Your task to perform on an android device: check google app version Image 0: 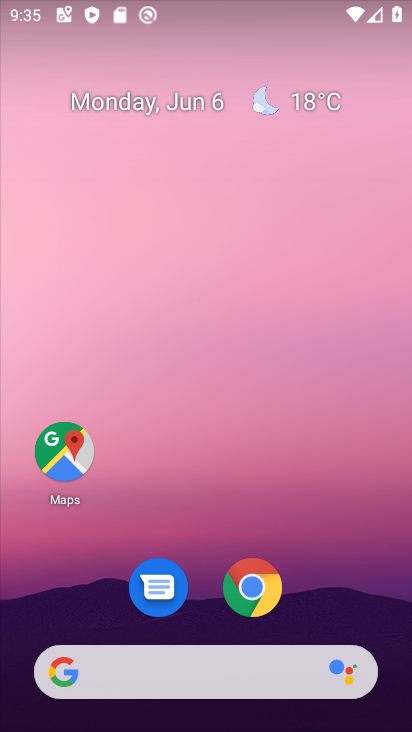
Step 0: drag from (349, 587) to (294, 69)
Your task to perform on an android device: check google app version Image 1: 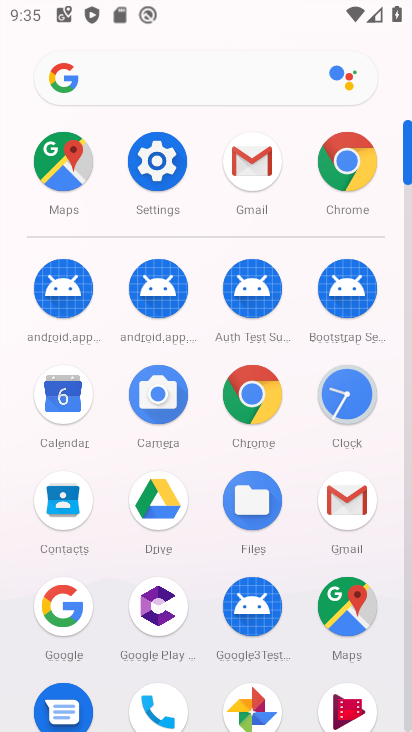
Step 1: click (67, 608)
Your task to perform on an android device: check google app version Image 2: 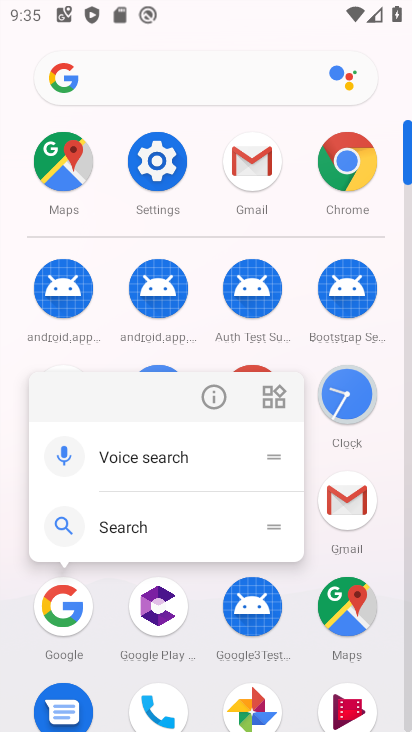
Step 2: click (210, 402)
Your task to perform on an android device: check google app version Image 3: 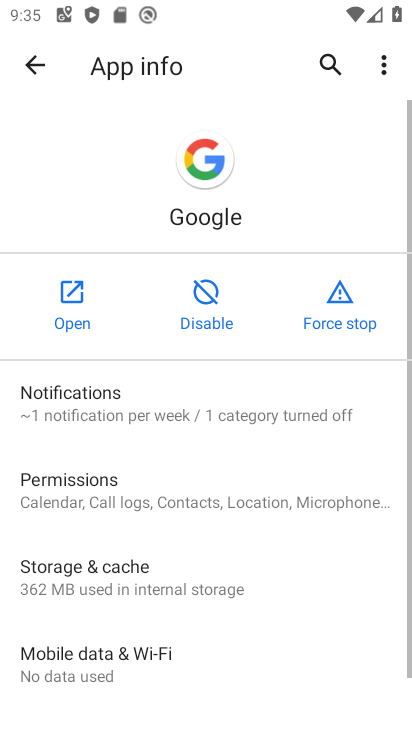
Step 3: drag from (134, 623) to (272, 100)
Your task to perform on an android device: check google app version Image 4: 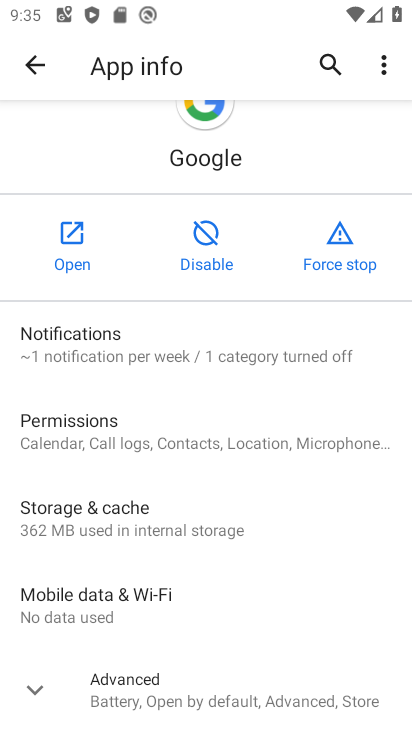
Step 4: click (150, 711)
Your task to perform on an android device: check google app version Image 5: 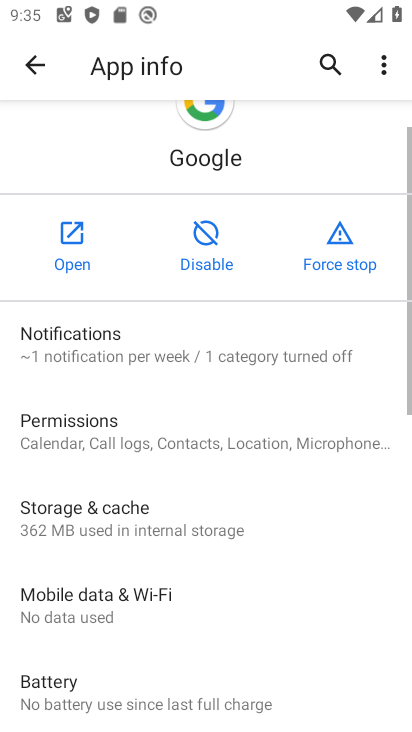
Step 5: drag from (157, 655) to (240, 111)
Your task to perform on an android device: check google app version Image 6: 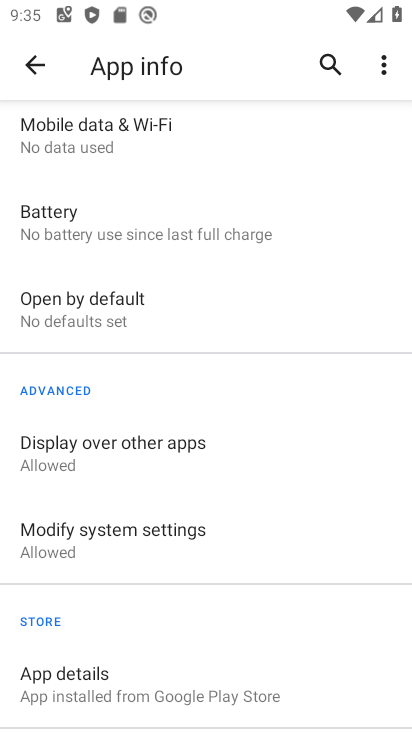
Step 6: click (211, 684)
Your task to perform on an android device: check google app version Image 7: 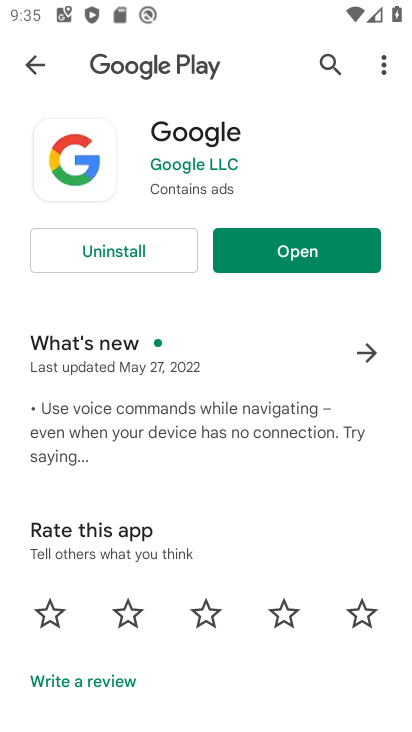
Step 7: press home button
Your task to perform on an android device: check google app version Image 8: 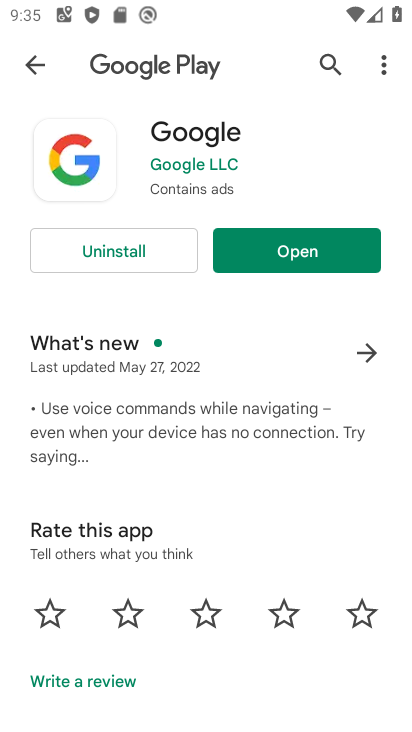
Step 8: press home button
Your task to perform on an android device: check google app version Image 9: 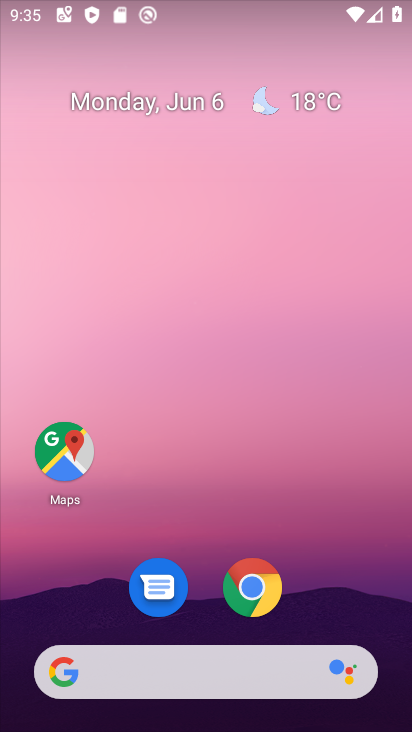
Step 9: click (248, 592)
Your task to perform on an android device: check google app version Image 10: 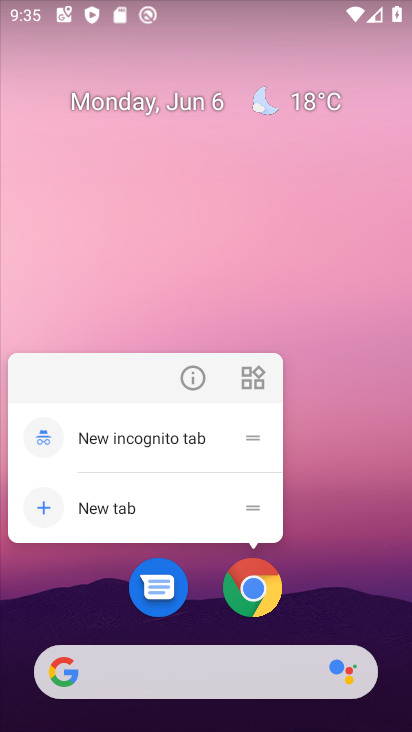
Step 10: click (195, 374)
Your task to perform on an android device: check google app version Image 11: 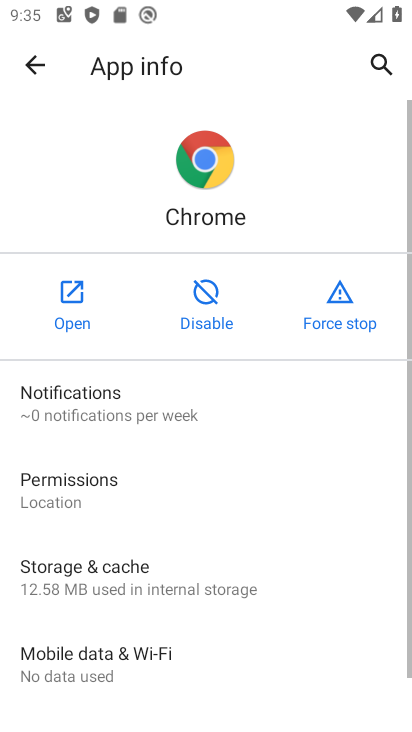
Step 11: drag from (208, 564) to (284, 53)
Your task to perform on an android device: check google app version Image 12: 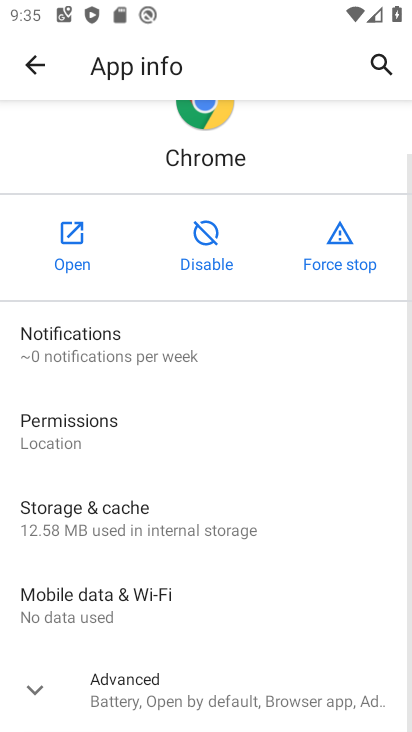
Step 12: click (118, 685)
Your task to perform on an android device: check google app version Image 13: 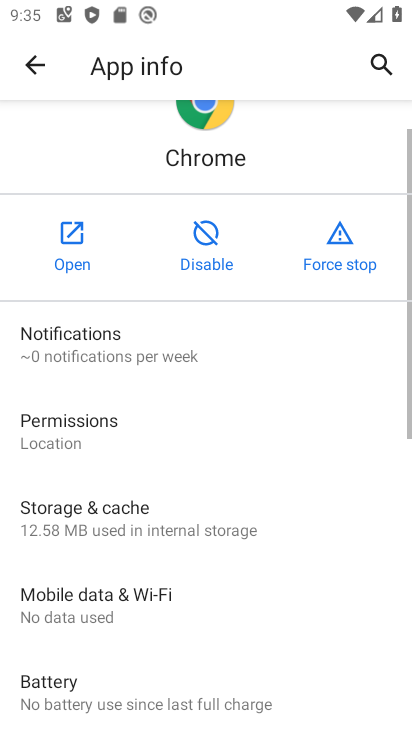
Step 13: task complete